Your task to perform on an android device: change timer sound Image 0: 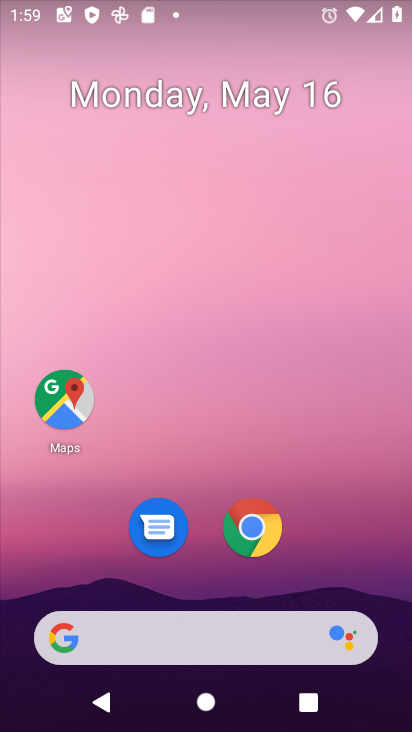
Step 0: drag from (354, 560) to (393, 118)
Your task to perform on an android device: change timer sound Image 1: 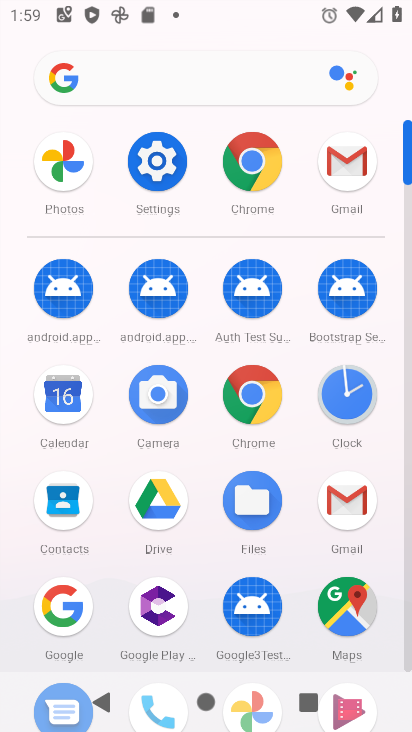
Step 1: click (139, 188)
Your task to perform on an android device: change timer sound Image 2: 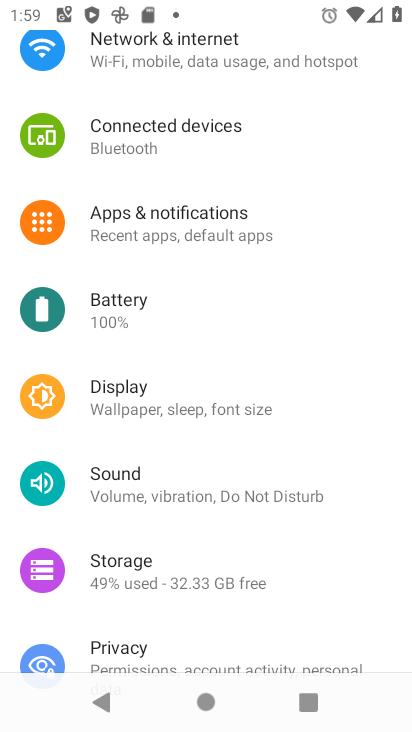
Step 2: press home button
Your task to perform on an android device: change timer sound Image 3: 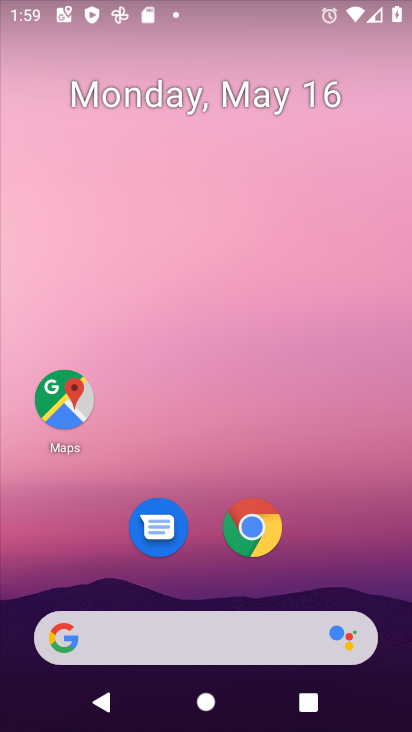
Step 3: drag from (346, 431) to (369, 74)
Your task to perform on an android device: change timer sound Image 4: 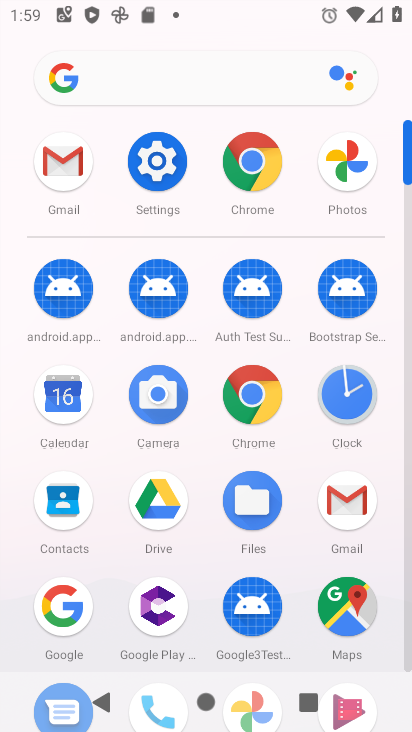
Step 4: click (328, 393)
Your task to perform on an android device: change timer sound Image 5: 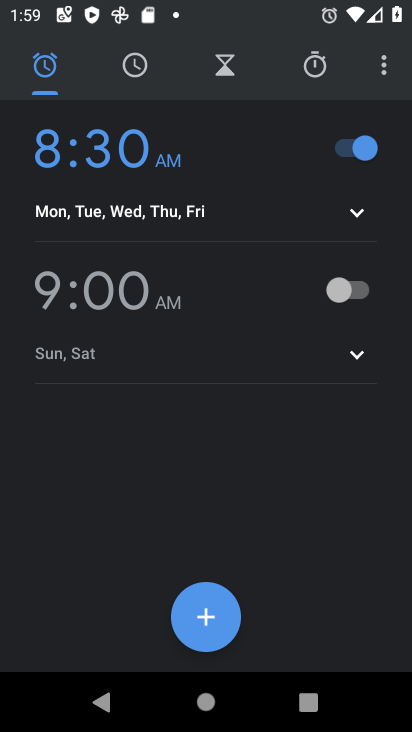
Step 5: click (387, 63)
Your task to perform on an android device: change timer sound Image 6: 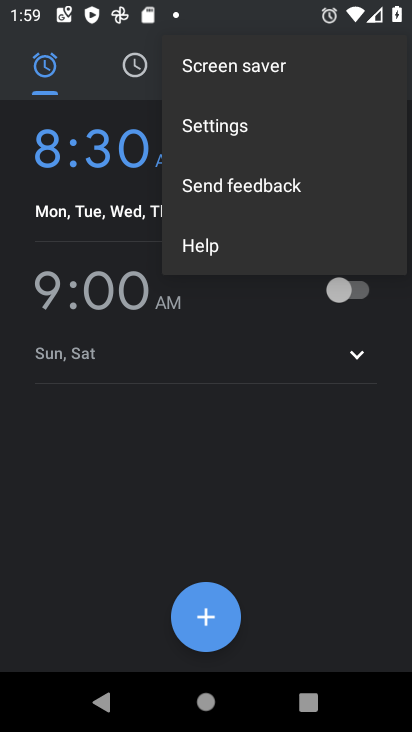
Step 6: click (307, 131)
Your task to perform on an android device: change timer sound Image 7: 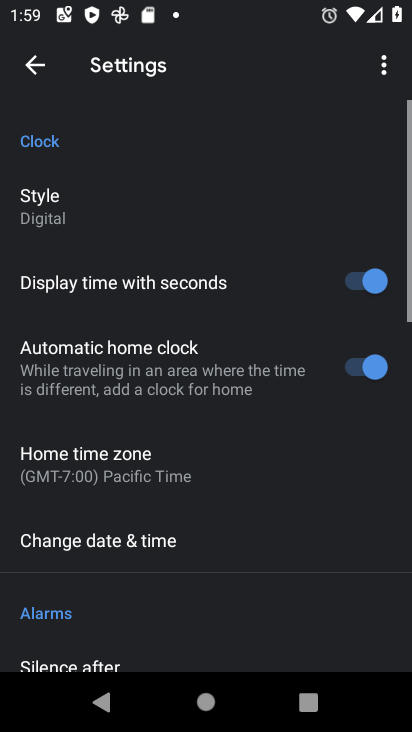
Step 7: drag from (208, 478) to (257, 293)
Your task to perform on an android device: change timer sound Image 8: 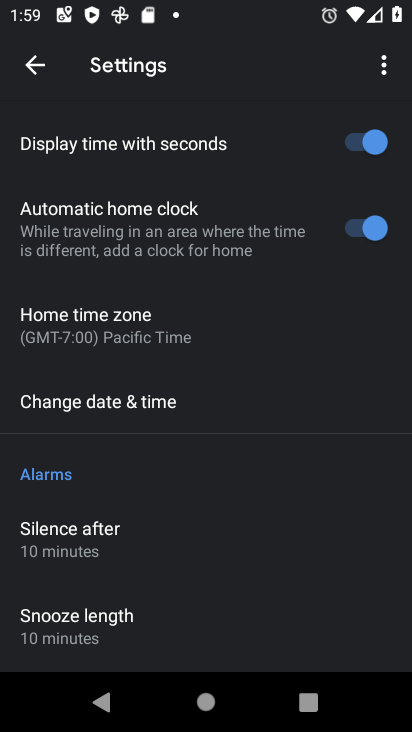
Step 8: click (198, 385)
Your task to perform on an android device: change timer sound Image 9: 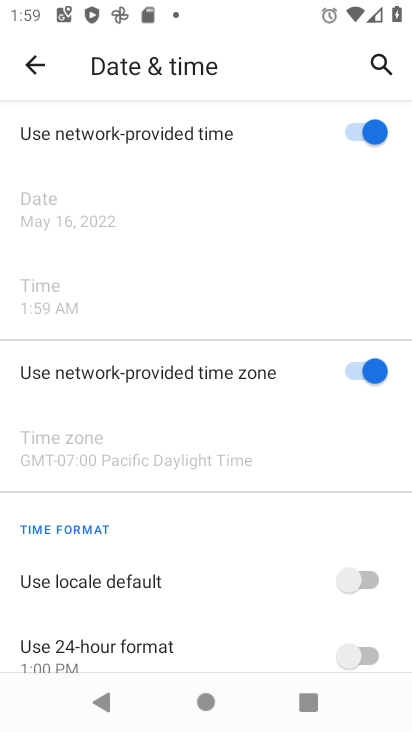
Step 9: drag from (130, 532) to (202, 518)
Your task to perform on an android device: change timer sound Image 10: 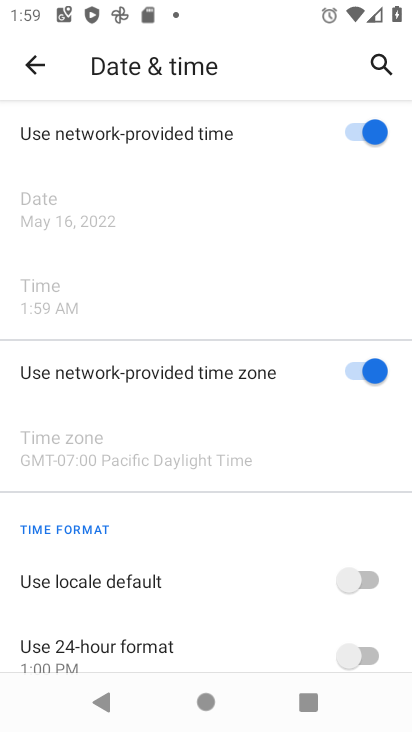
Step 10: click (63, 76)
Your task to perform on an android device: change timer sound Image 11: 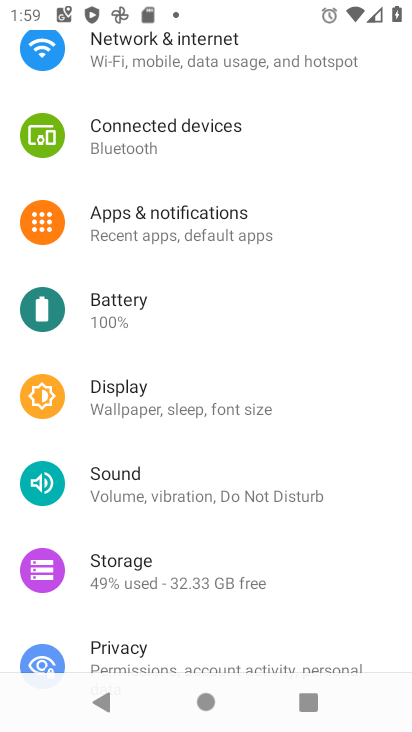
Step 11: click (107, 684)
Your task to perform on an android device: change timer sound Image 12: 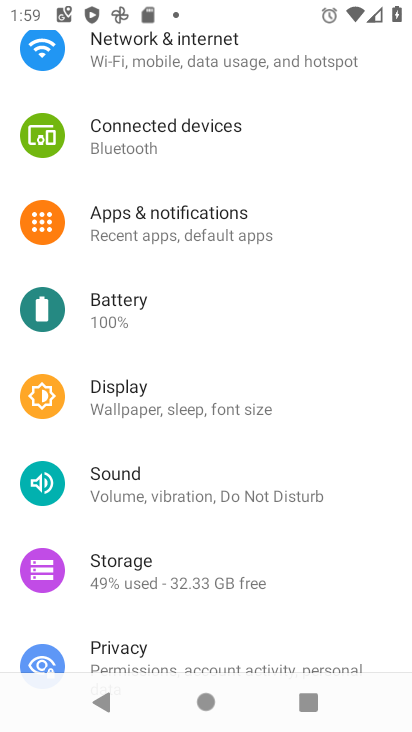
Step 12: click (102, 699)
Your task to perform on an android device: change timer sound Image 13: 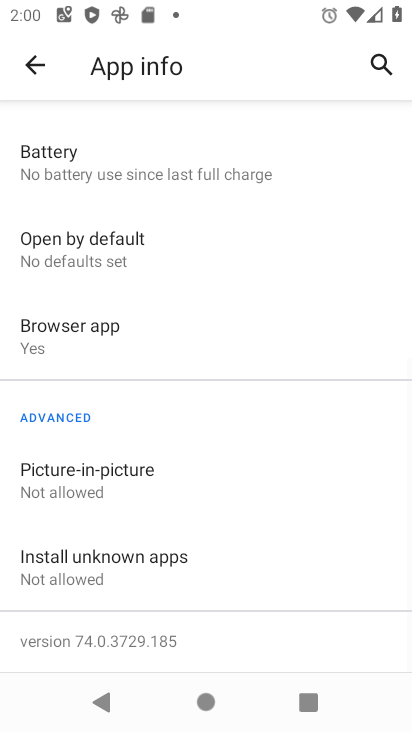
Step 13: press home button
Your task to perform on an android device: change timer sound Image 14: 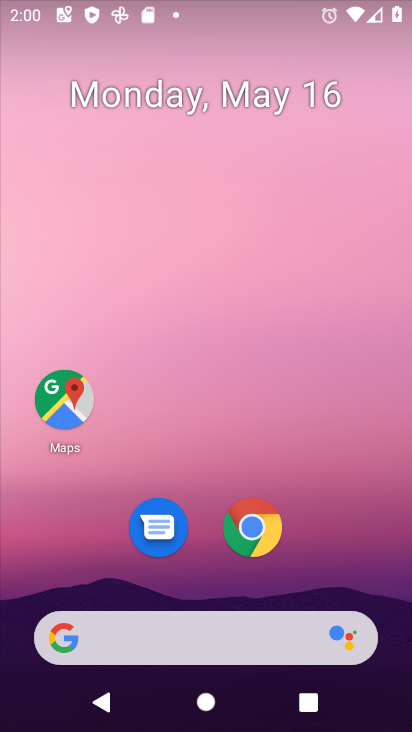
Step 14: drag from (325, 568) to (382, 65)
Your task to perform on an android device: change timer sound Image 15: 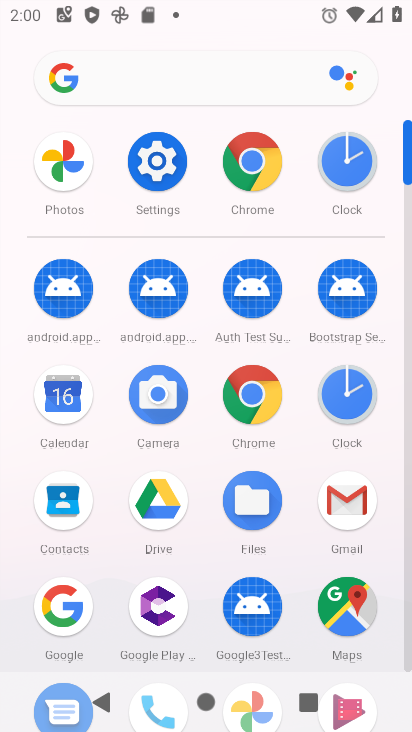
Step 15: click (334, 390)
Your task to perform on an android device: change timer sound Image 16: 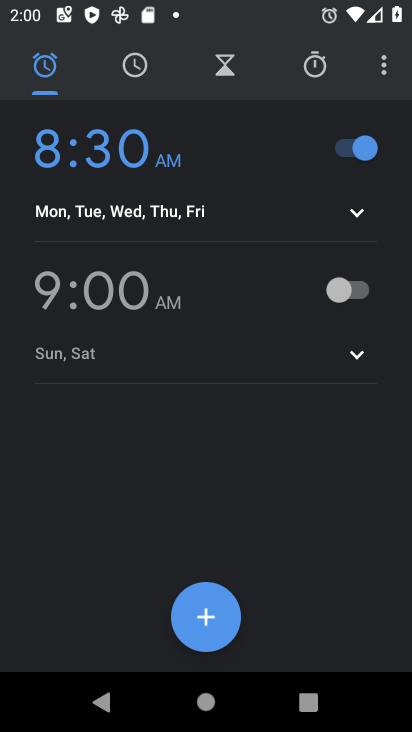
Step 16: click (374, 54)
Your task to perform on an android device: change timer sound Image 17: 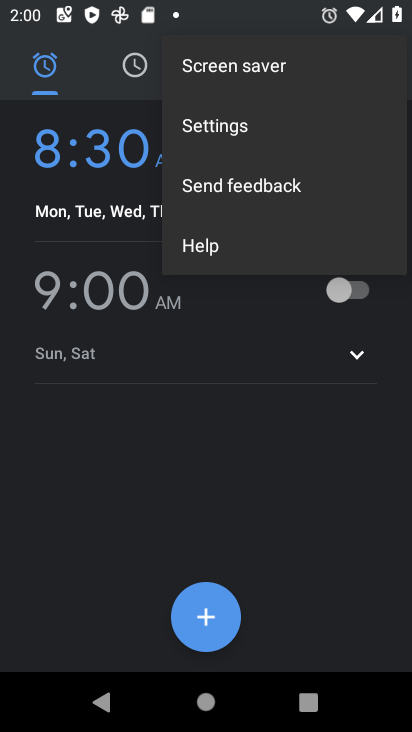
Step 17: click (273, 137)
Your task to perform on an android device: change timer sound Image 18: 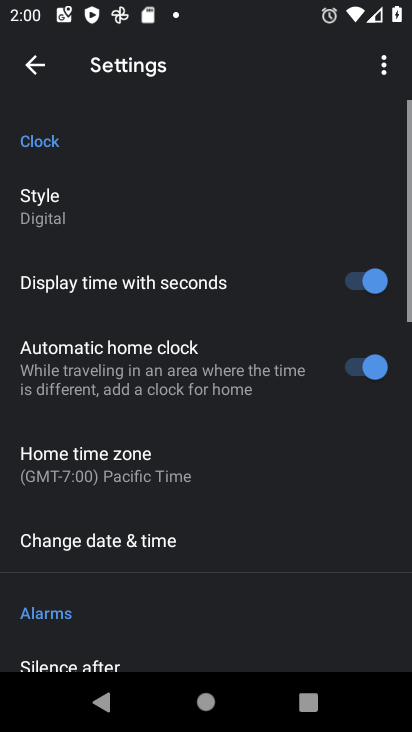
Step 18: drag from (212, 557) to (310, 172)
Your task to perform on an android device: change timer sound Image 19: 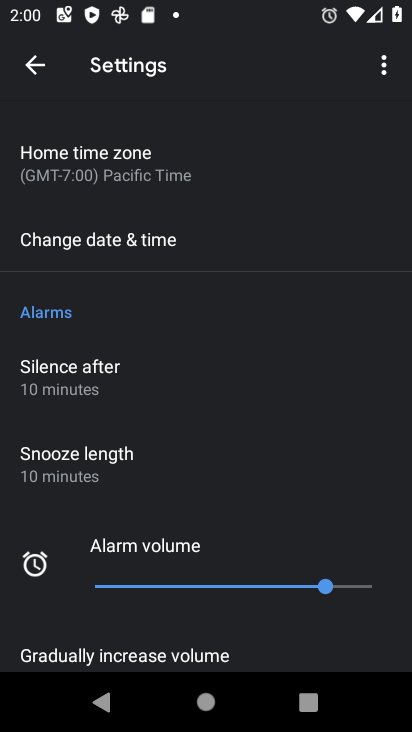
Step 19: drag from (205, 477) to (285, 202)
Your task to perform on an android device: change timer sound Image 20: 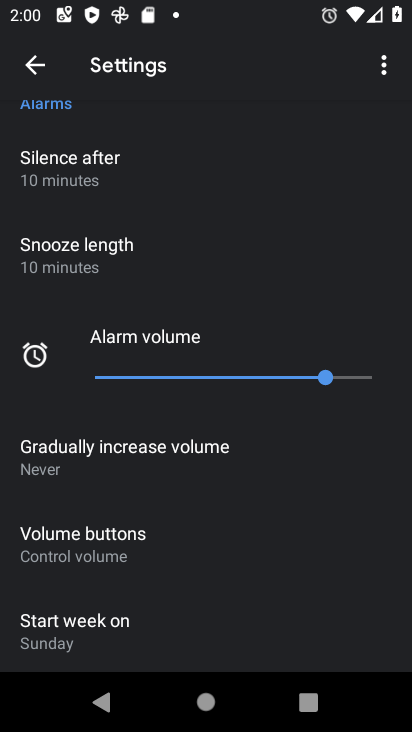
Step 20: drag from (216, 553) to (293, 149)
Your task to perform on an android device: change timer sound Image 21: 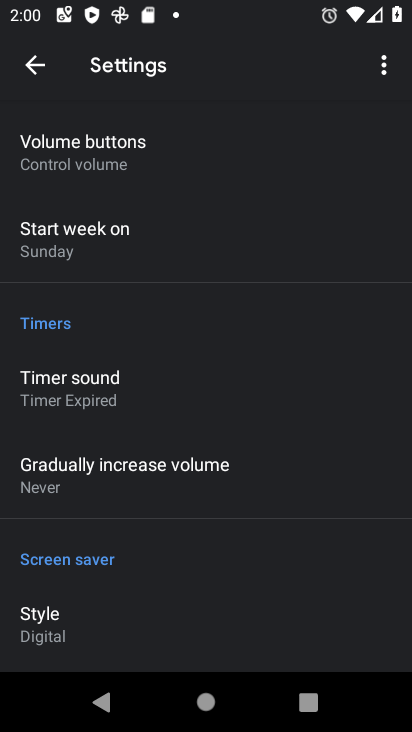
Step 21: click (188, 408)
Your task to perform on an android device: change timer sound Image 22: 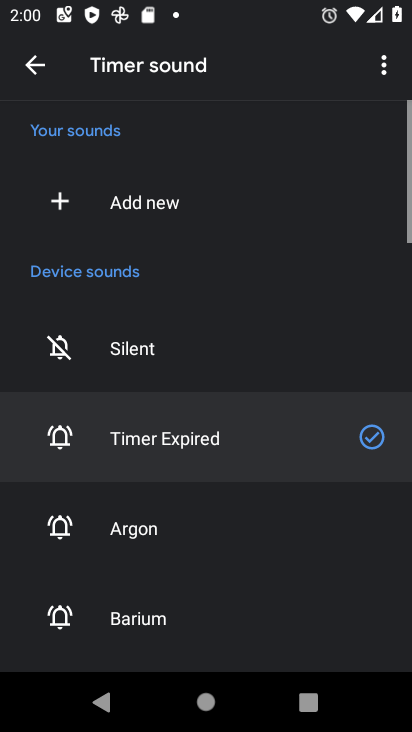
Step 22: click (159, 554)
Your task to perform on an android device: change timer sound Image 23: 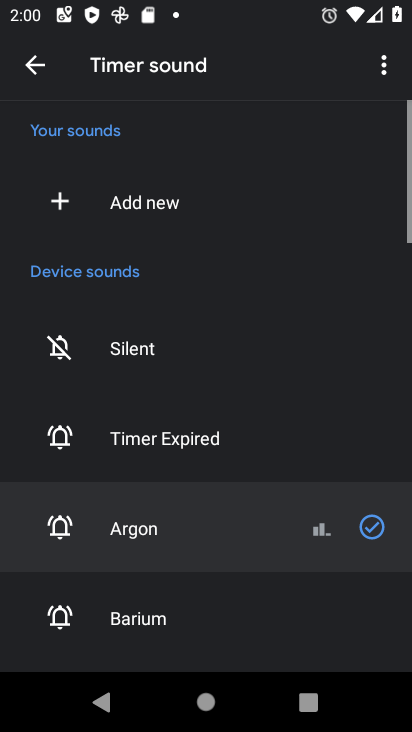
Step 23: task complete